Your task to perform on an android device: Go to sound settings Image 0: 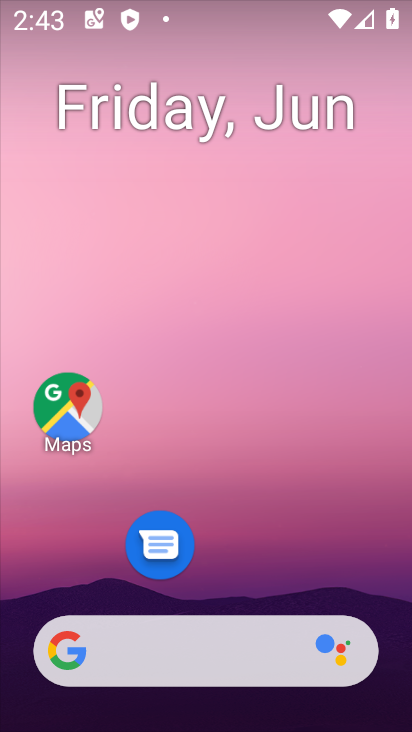
Step 0: drag from (260, 588) to (283, 72)
Your task to perform on an android device: Go to sound settings Image 1: 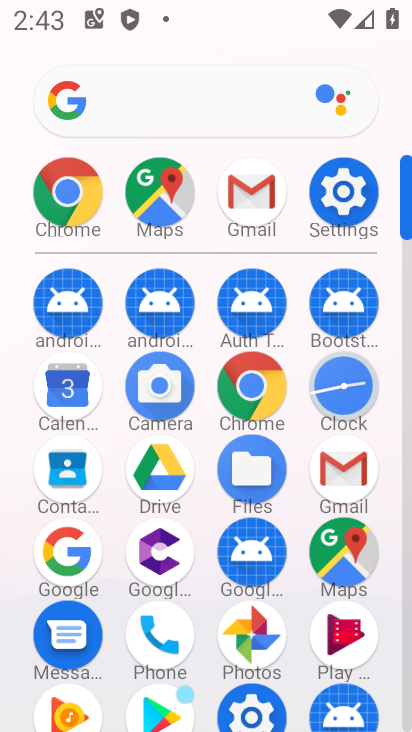
Step 1: click (333, 197)
Your task to perform on an android device: Go to sound settings Image 2: 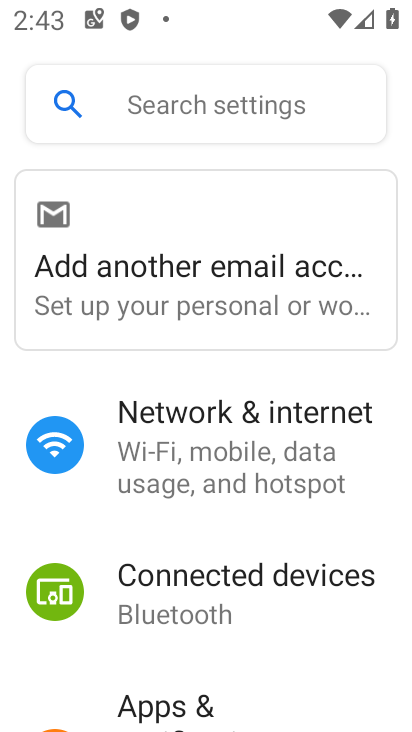
Step 2: drag from (269, 640) to (296, 377)
Your task to perform on an android device: Go to sound settings Image 3: 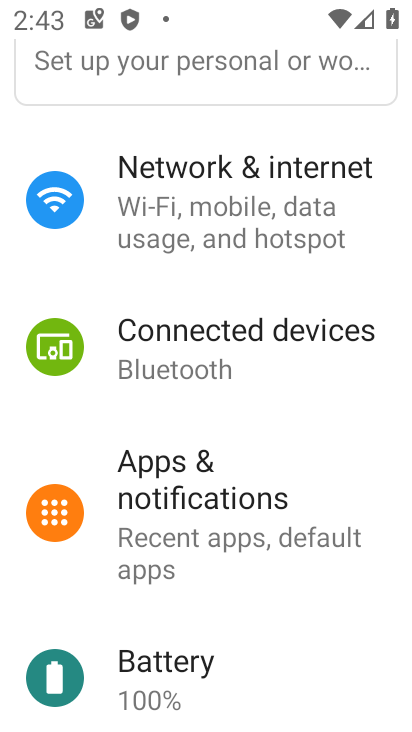
Step 3: drag from (207, 675) to (255, 386)
Your task to perform on an android device: Go to sound settings Image 4: 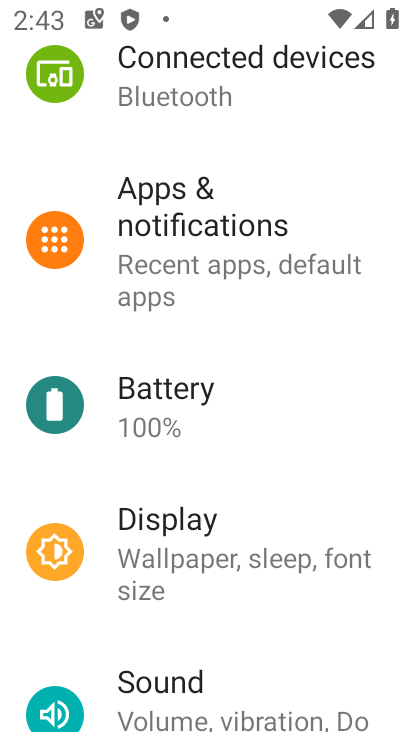
Step 4: click (155, 689)
Your task to perform on an android device: Go to sound settings Image 5: 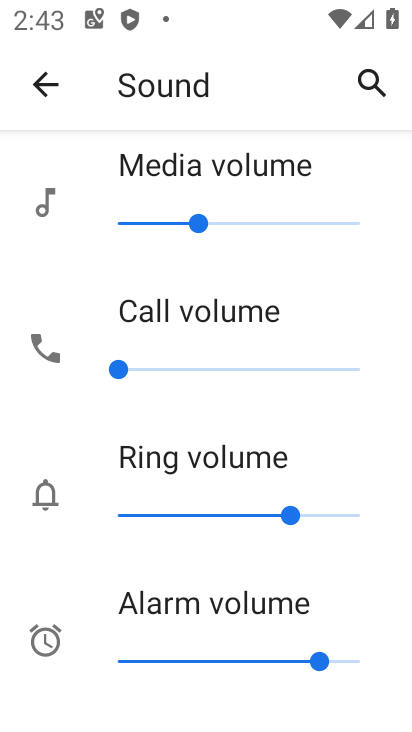
Step 5: task complete